Your task to perform on an android device: move a message to another label in the gmail app Image 0: 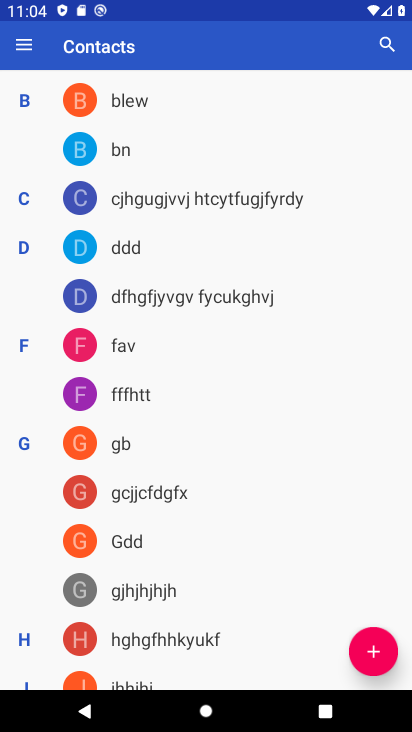
Step 0: press home button
Your task to perform on an android device: move a message to another label in the gmail app Image 1: 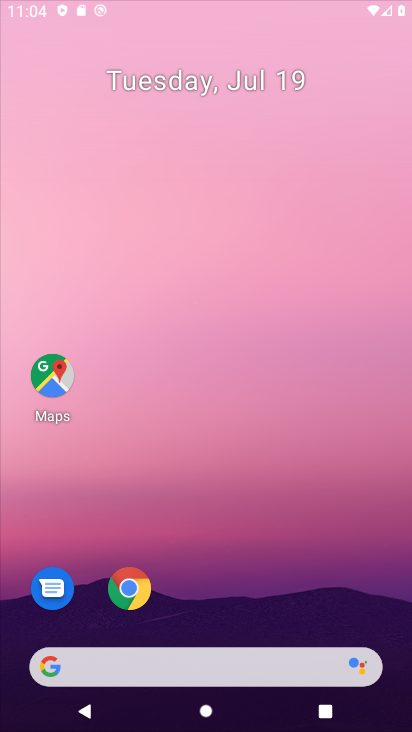
Step 1: drag from (337, 599) to (263, 27)
Your task to perform on an android device: move a message to another label in the gmail app Image 2: 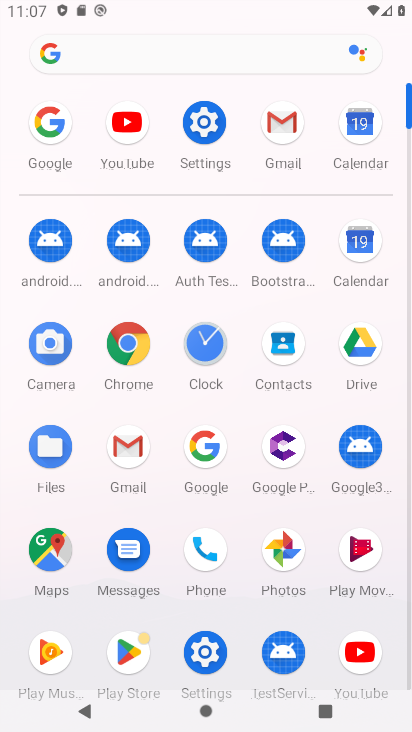
Step 2: click (125, 445)
Your task to perform on an android device: move a message to another label in the gmail app Image 3: 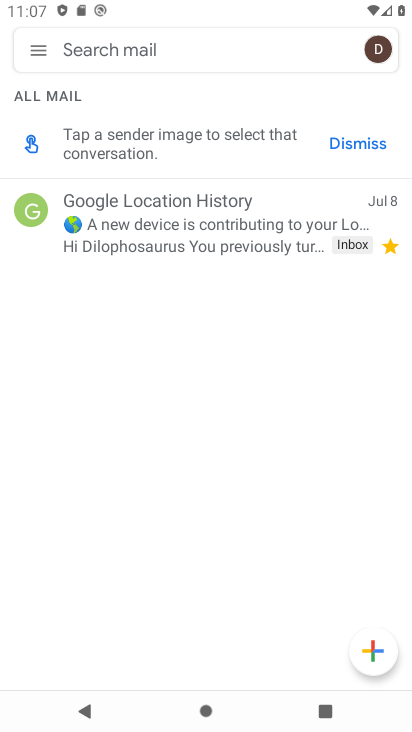
Step 3: task complete